Your task to perform on an android device: turn off wifi Image 0: 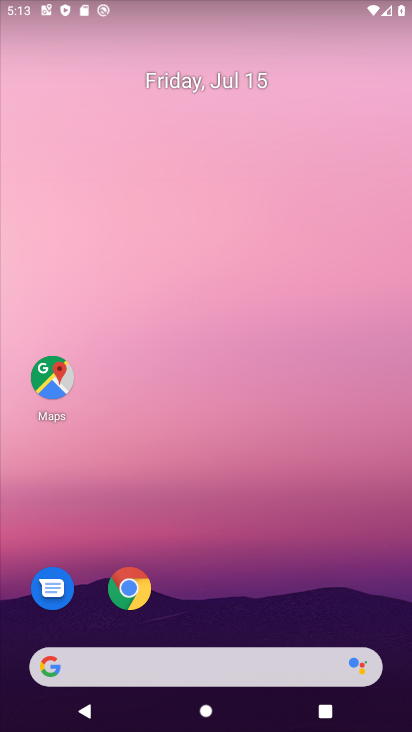
Step 0: drag from (238, 621) to (279, 1)
Your task to perform on an android device: turn off wifi Image 1: 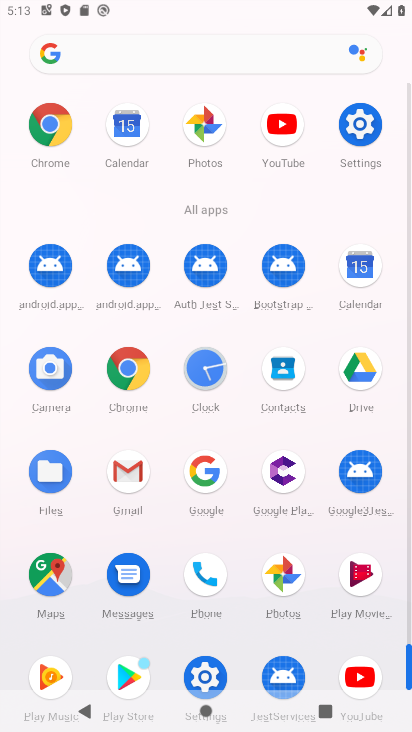
Step 1: click (359, 132)
Your task to perform on an android device: turn off wifi Image 2: 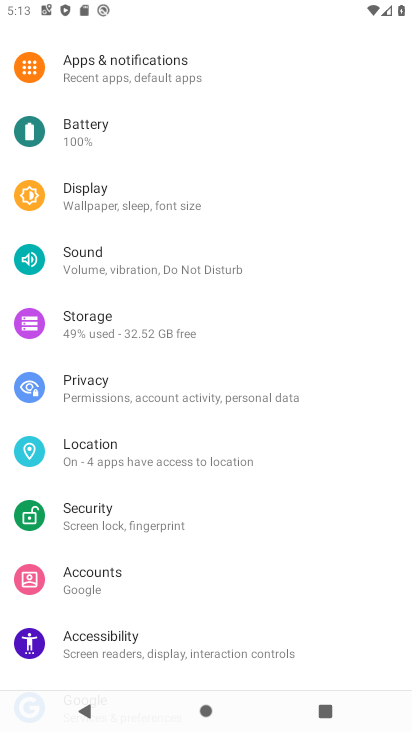
Step 2: drag from (161, 105) to (144, 717)
Your task to perform on an android device: turn off wifi Image 3: 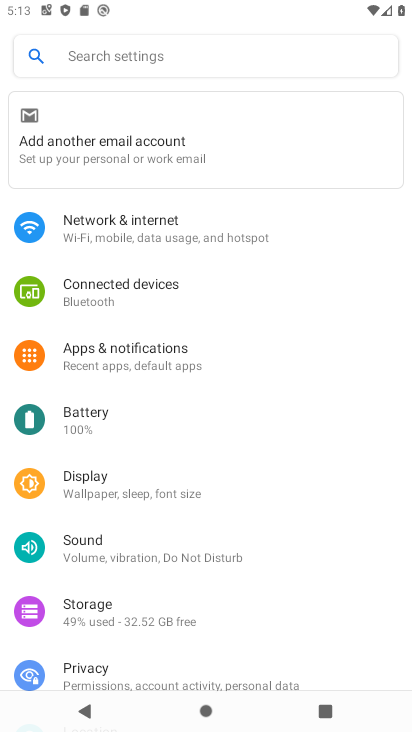
Step 3: click (172, 231)
Your task to perform on an android device: turn off wifi Image 4: 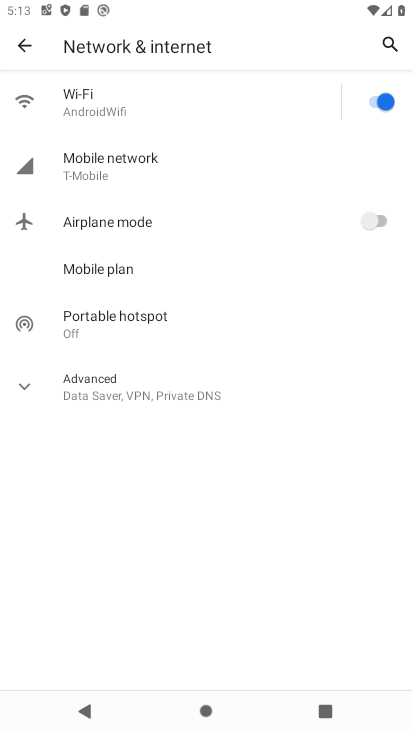
Step 4: click (369, 101)
Your task to perform on an android device: turn off wifi Image 5: 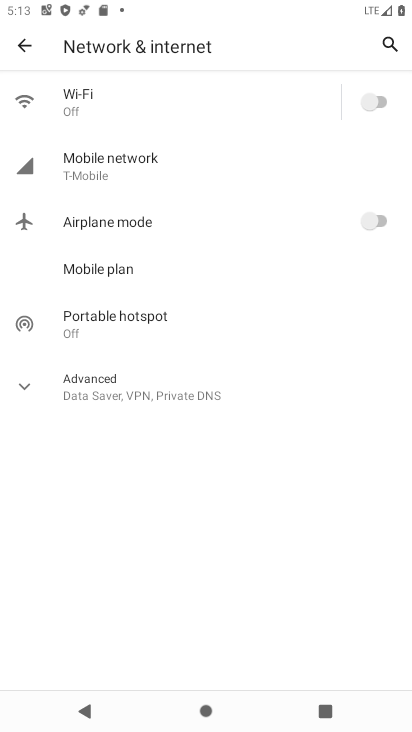
Step 5: task complete